Your task to perform on an android device: Open Google Chrome and click the shortcut for Amazon.com Image 0: 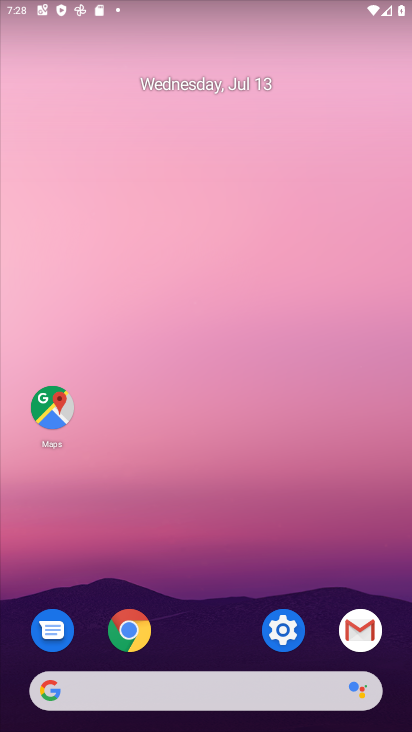
Step 0: click (139, 633)
Your task to perform on an android device: Open Google Chrome and click the shortcut for Amazon.com Image 1: 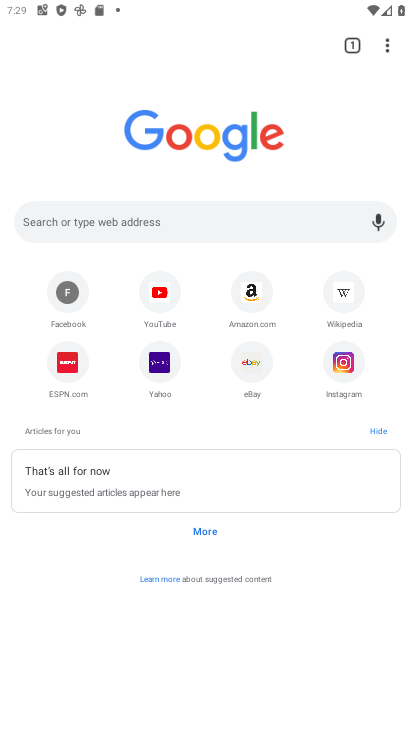
Step 1: click (255, 305)
Your task to perform on an android device: Open Google Chrome and click the shortcut for Amazon.com Image 2: 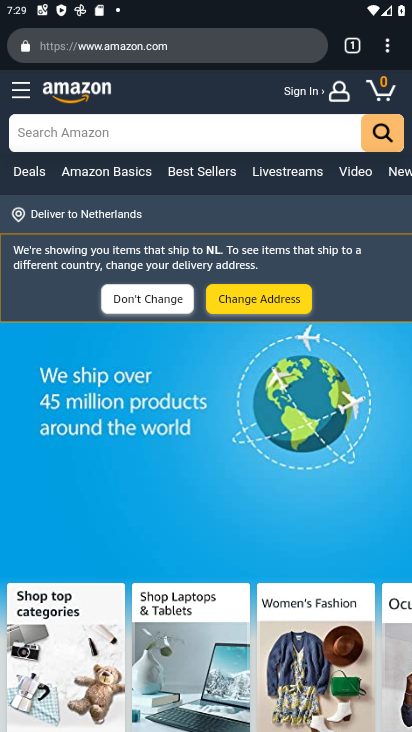
Step 2: click (384, 56)
Your task to perform on an android device: Open Google Chrome and click the shortcut for Amazon.com Image 3: 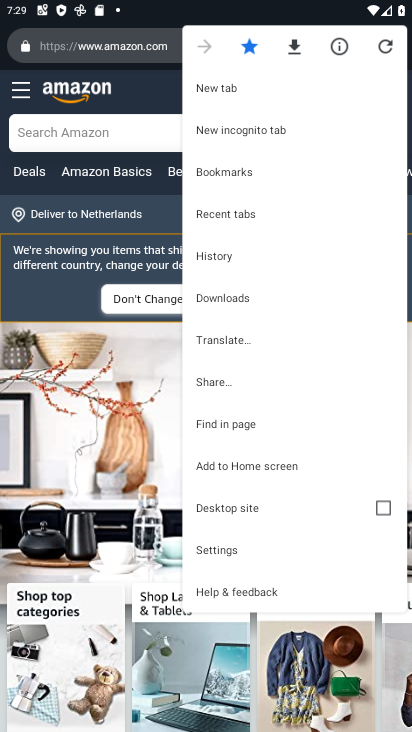
Step 3: click (262, 466)
Your task to perform on an android device: Open Google Chrome and click the shortcut for Amazon.com Image 4: 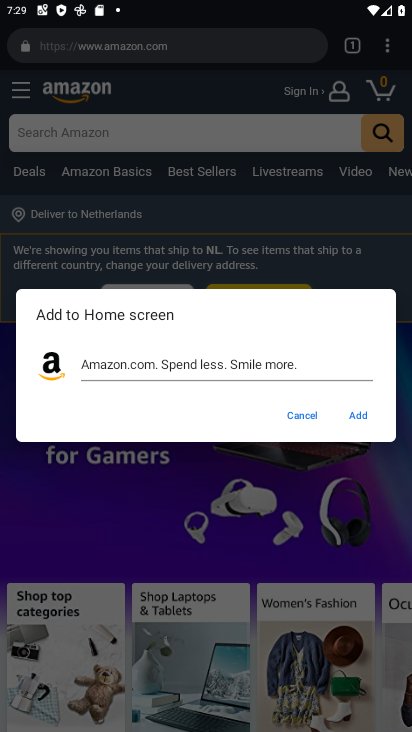
Step 4: click (364, 408)
Your task to perform on an android device: Open Google Chrome and click the shortcut for Amazon.com Image 5: 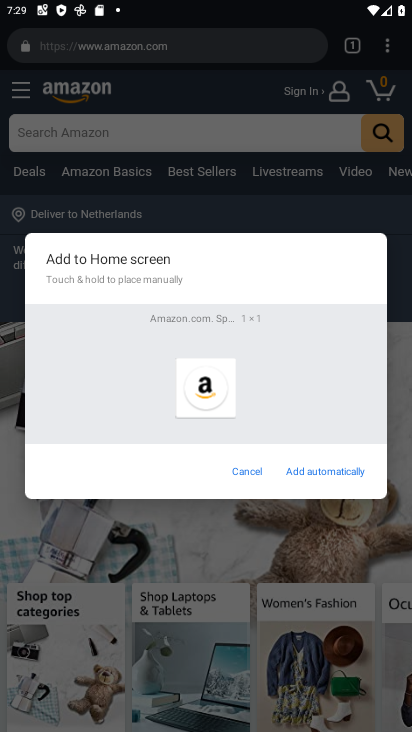
Step 5: click (307, 475)
Your task to perform on an android device: Open Google Chrome and click the shortcut for Amazon.com Image 6: 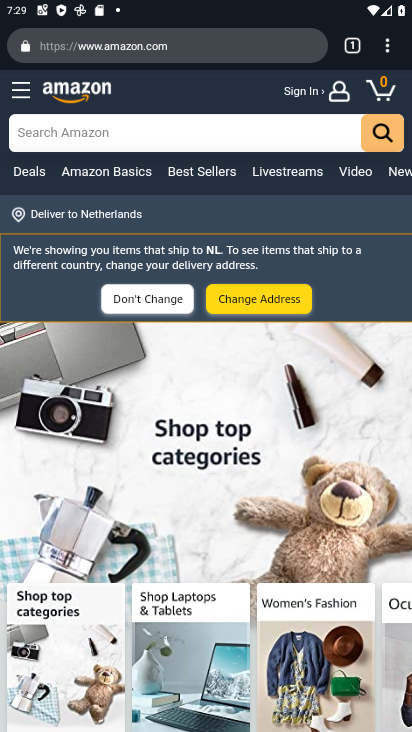
Step 6: task complete